Your task to perform on an android device: Search for Italian restaurants on Maps Image 0: 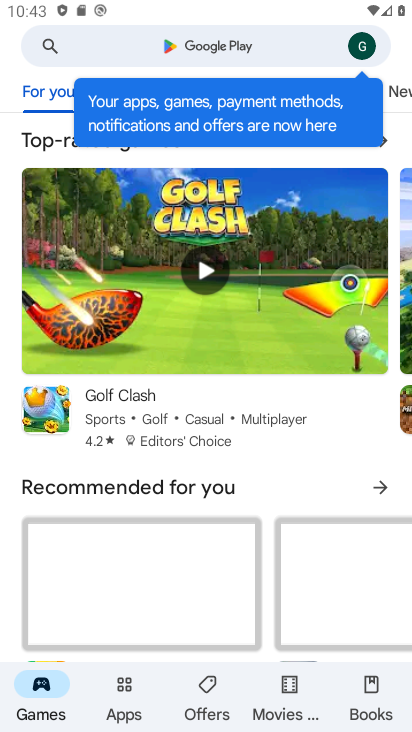
Step 0: press home button
Your task to perform on an android device: Search for Italian restaurants on Maps Image 1: 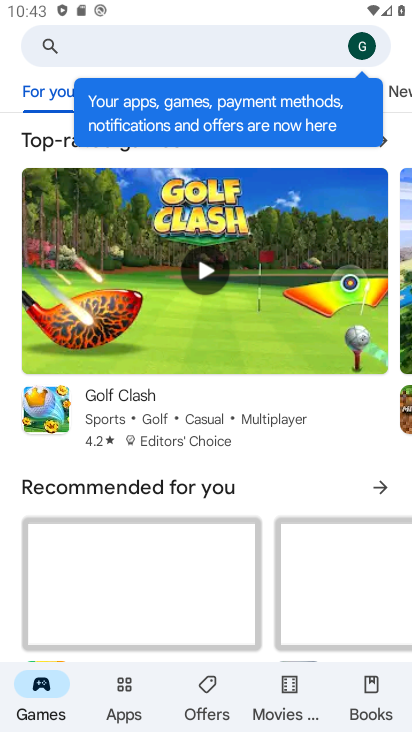
Step 1: click (131, 674)
Your task to perform on an android device: Search for Italian restaurants on Maps Image 2: 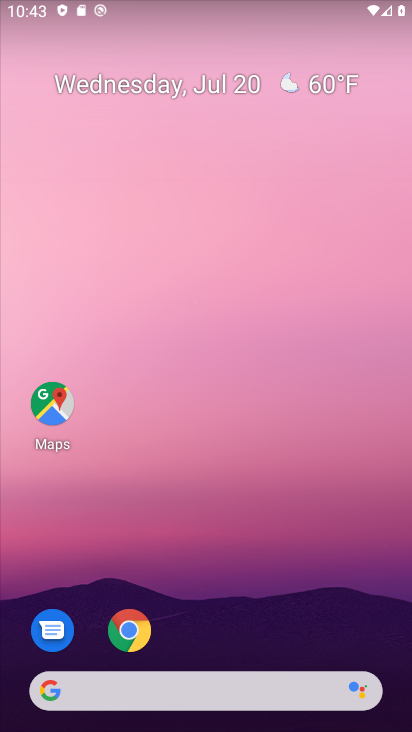
Step 2: drag from (231, 719) to (223, 262)
Your task to perform on an android device: Search for Italian restaurants on Maps Image 3: 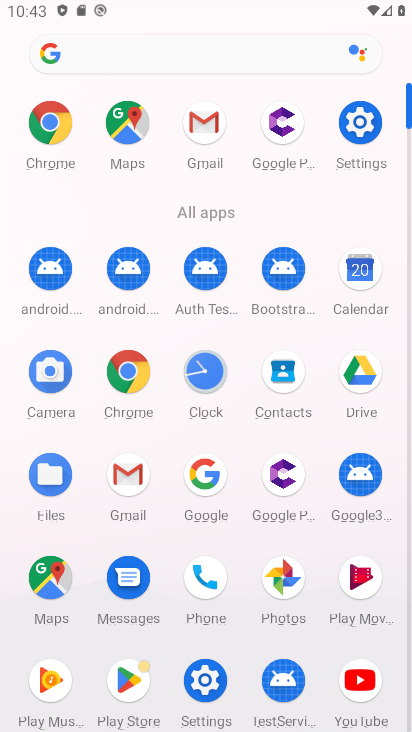
Step 3: click (39, 589)
Your task to perform on an android device: Search for Italian restaurants on Maps Image 4: 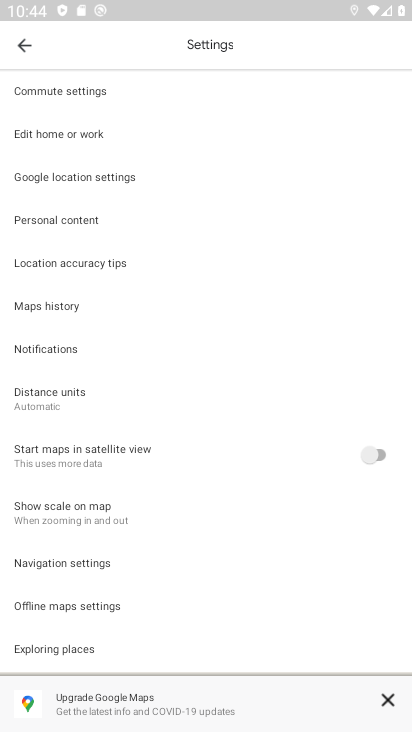
Step 4: click (26, 48)
Your task to perform on an android device: Search for Italian restaurants on Maps Image 5: 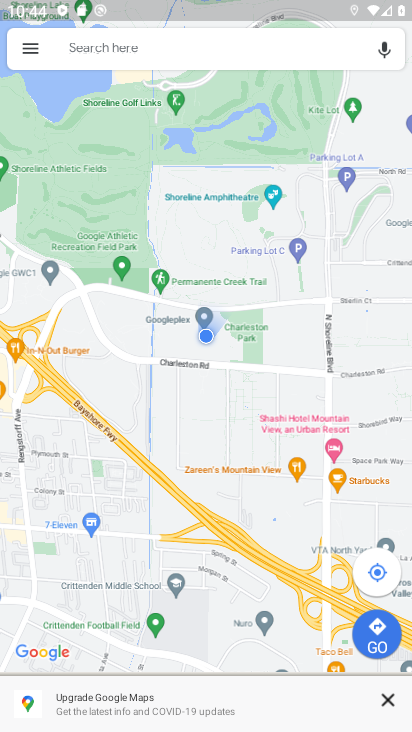
Step 5: click (152, 45)
Your task to perform on an android device: Search for Italian restaurants on Maps Image 6: 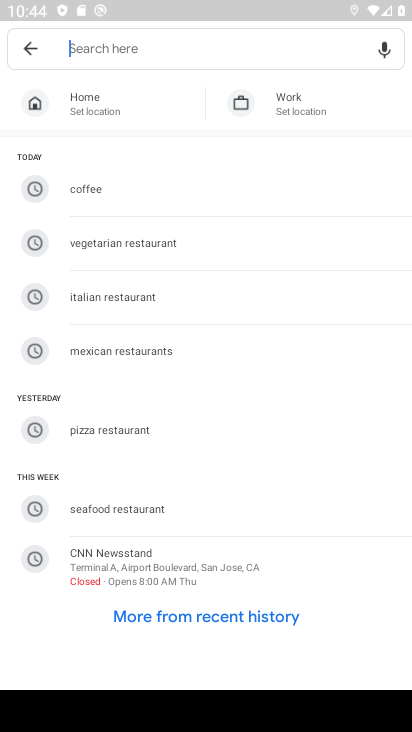
Step 6: type "italian restaurants"
Your task to perform on an android device: Search for Italian restaurants on Maps Image 7: 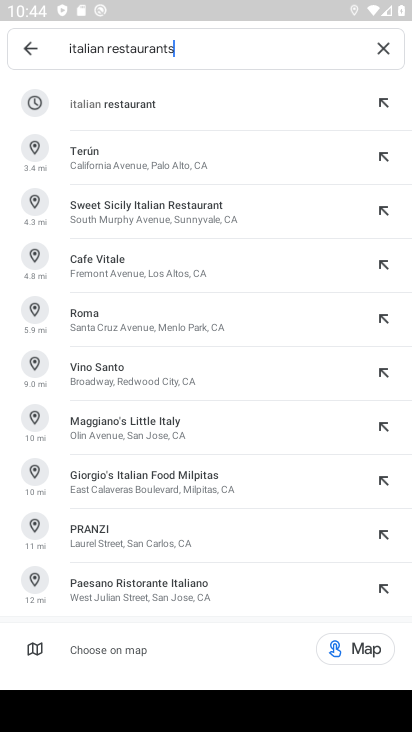
Step 7: click (95, 101)
Your task to perform on an android device: Search for Italian restaurants on Maps Image 8: 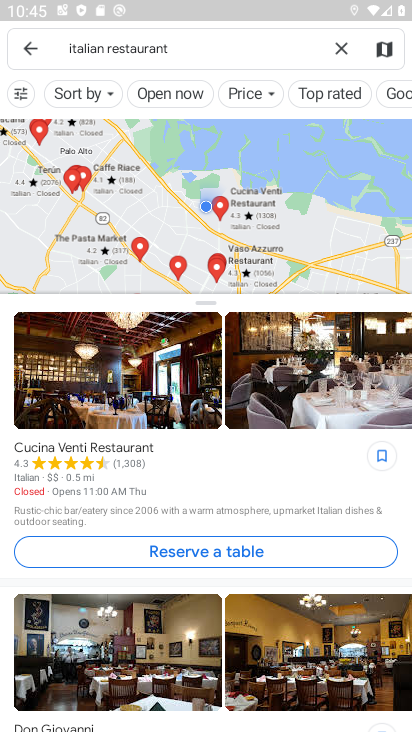
Step 8: task complete